Your task to perform on an android device: Show the shopping cart on ebay. Image 0: 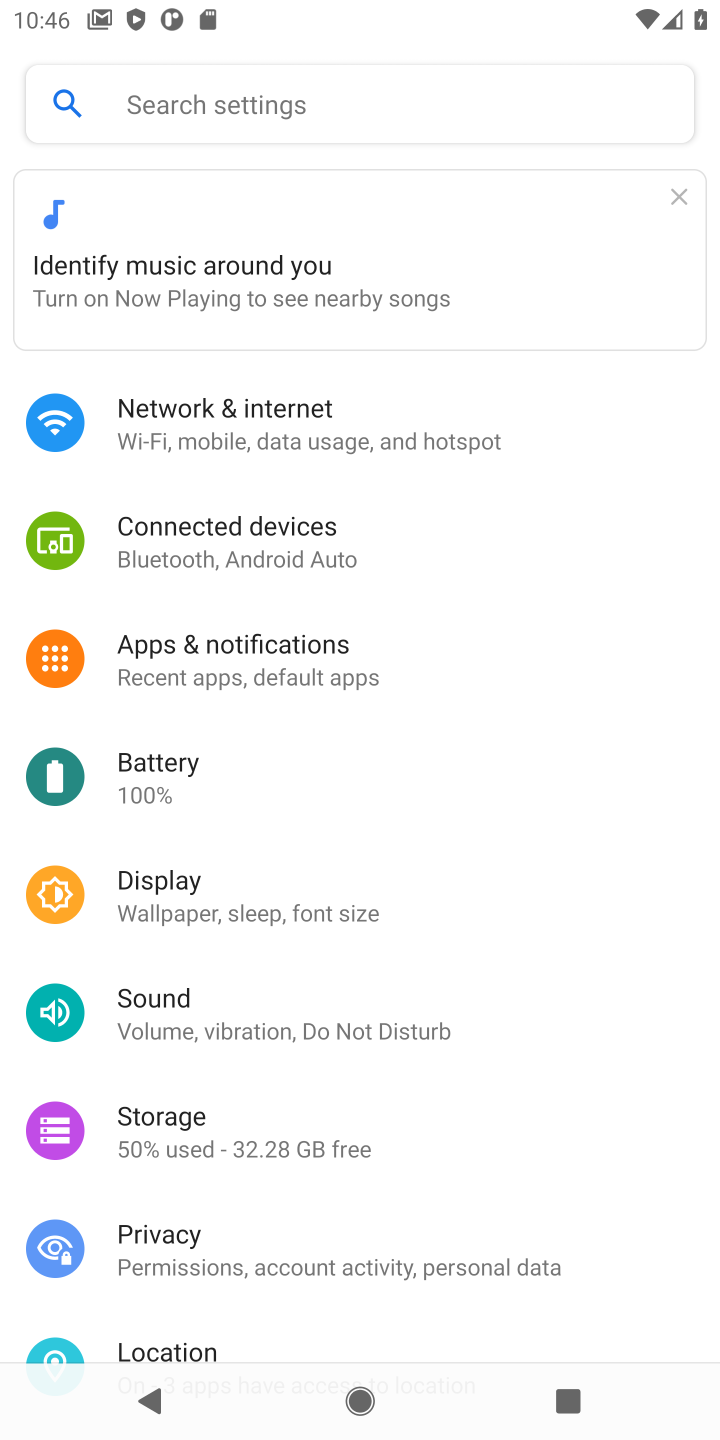
Step 0: press home button
Your task to perform on an android device: Show the shopping cart on ebay. Image 1: 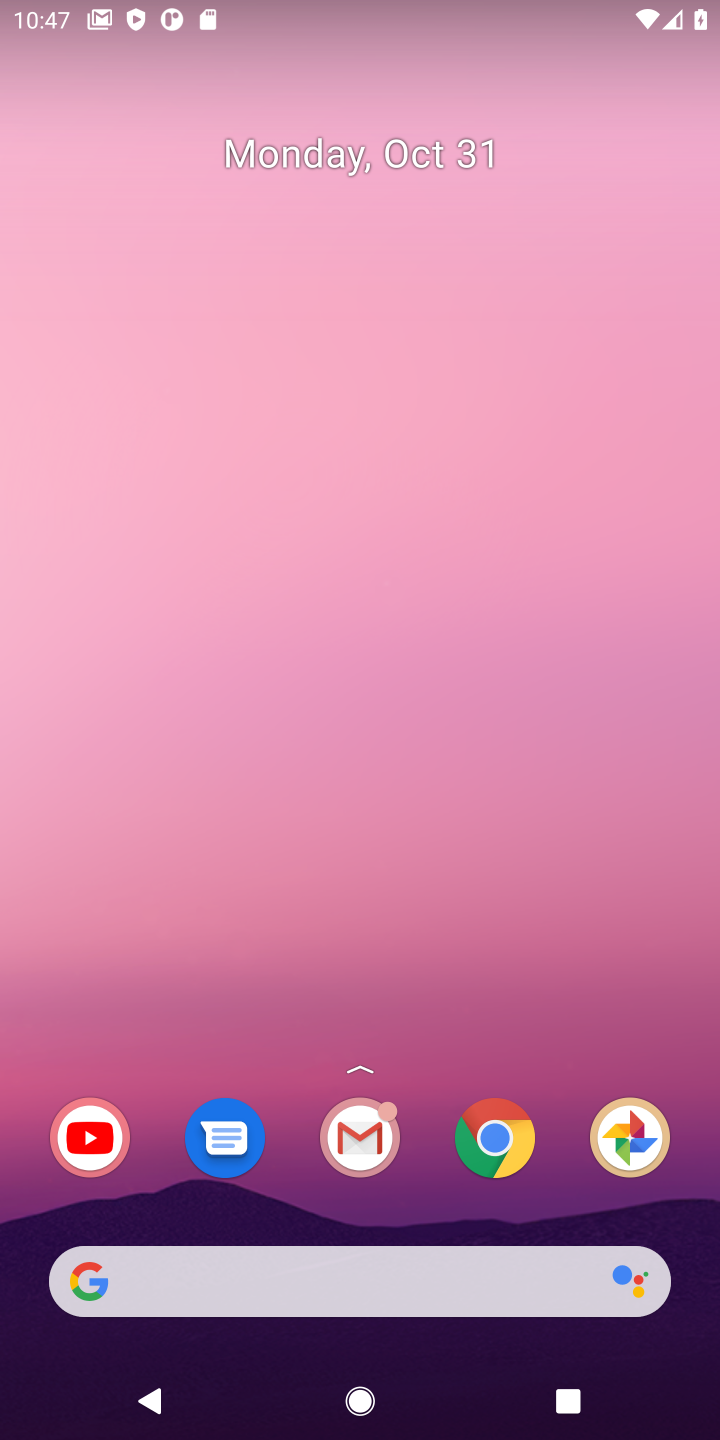
Step 1: click (497, 1128)
Your task to perform on an android device: Show the shopping cart on ebay. Image 2: 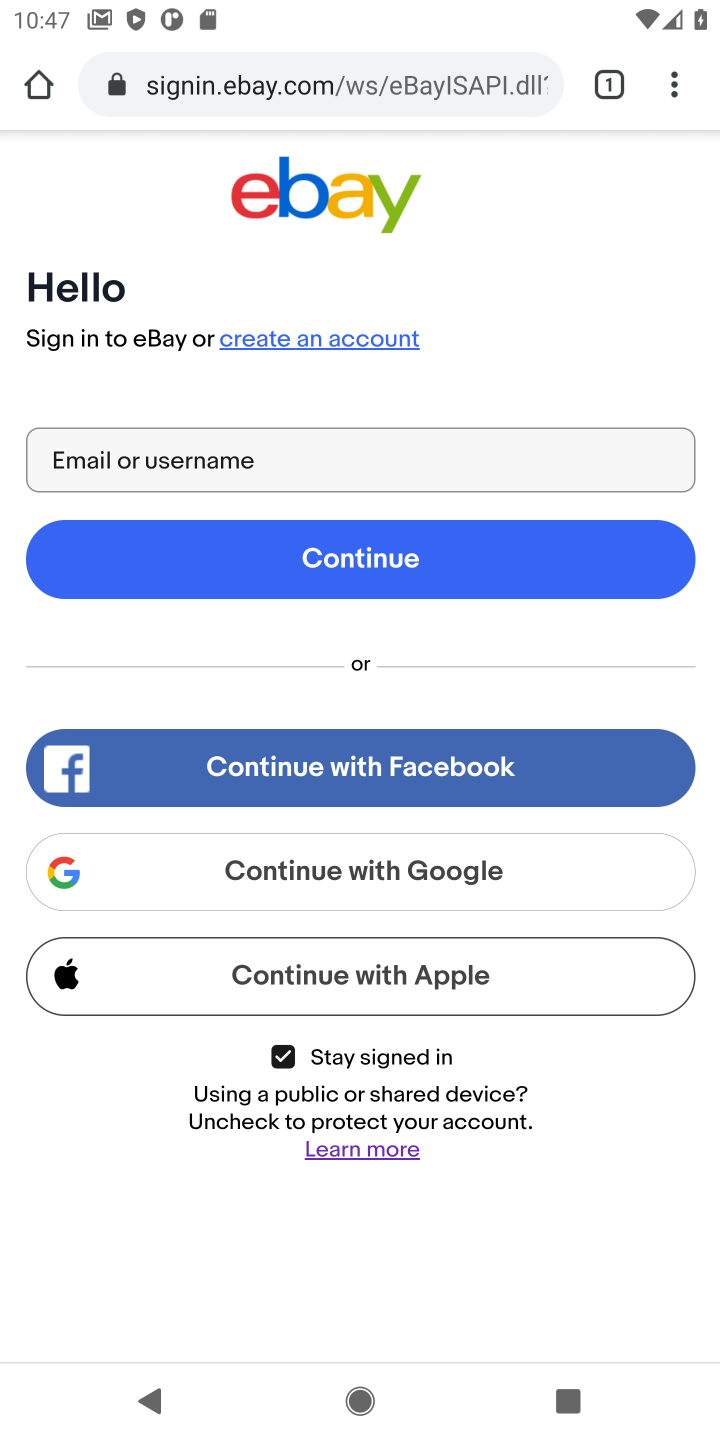
Step 2: click (469, 94)
Your task to perform on an android device: Show the shopping cart on ebay. Image 3: 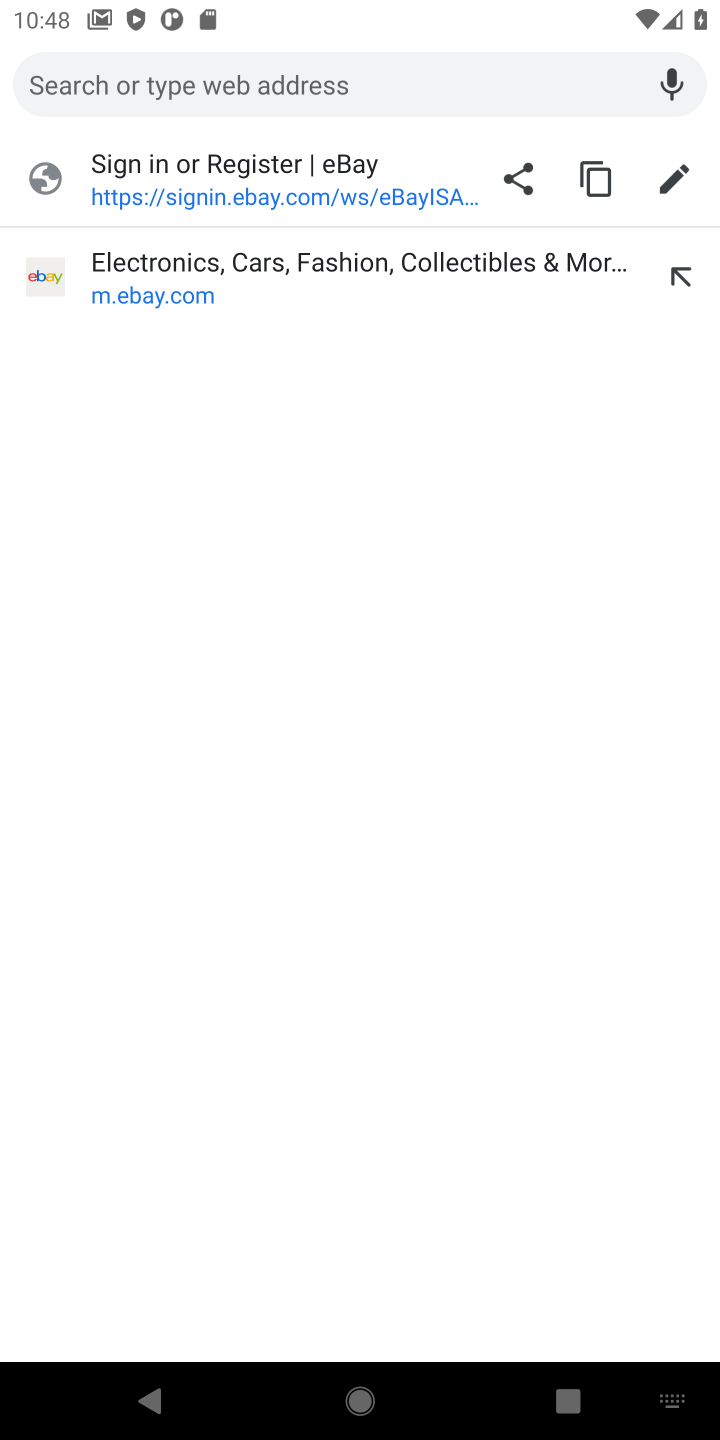
Step 3: click (177, 298)
Your task to perform on an android device: Show the shopping cart on ebay. Image 4: 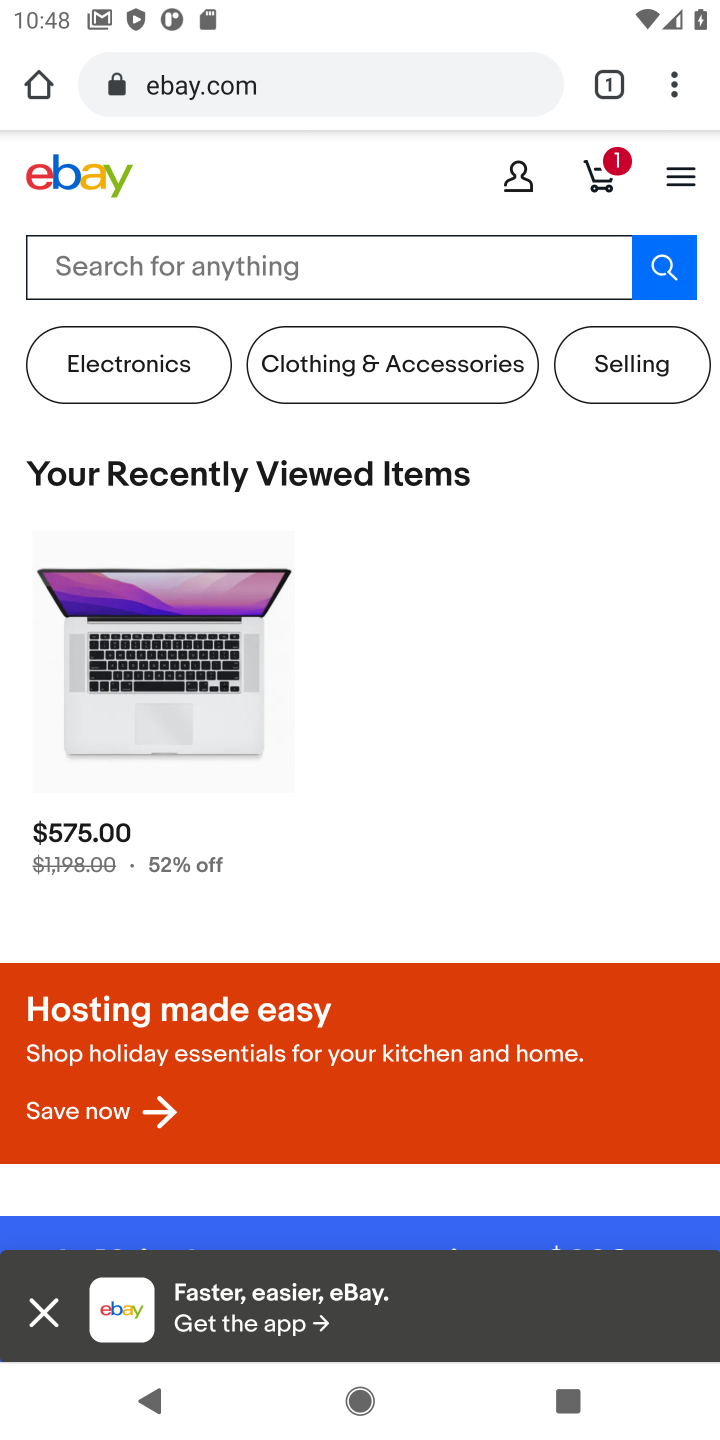
Step 4: click (610, 192)
Your task to perform on an android device: Show the shopping cart on ebay. Image 5: 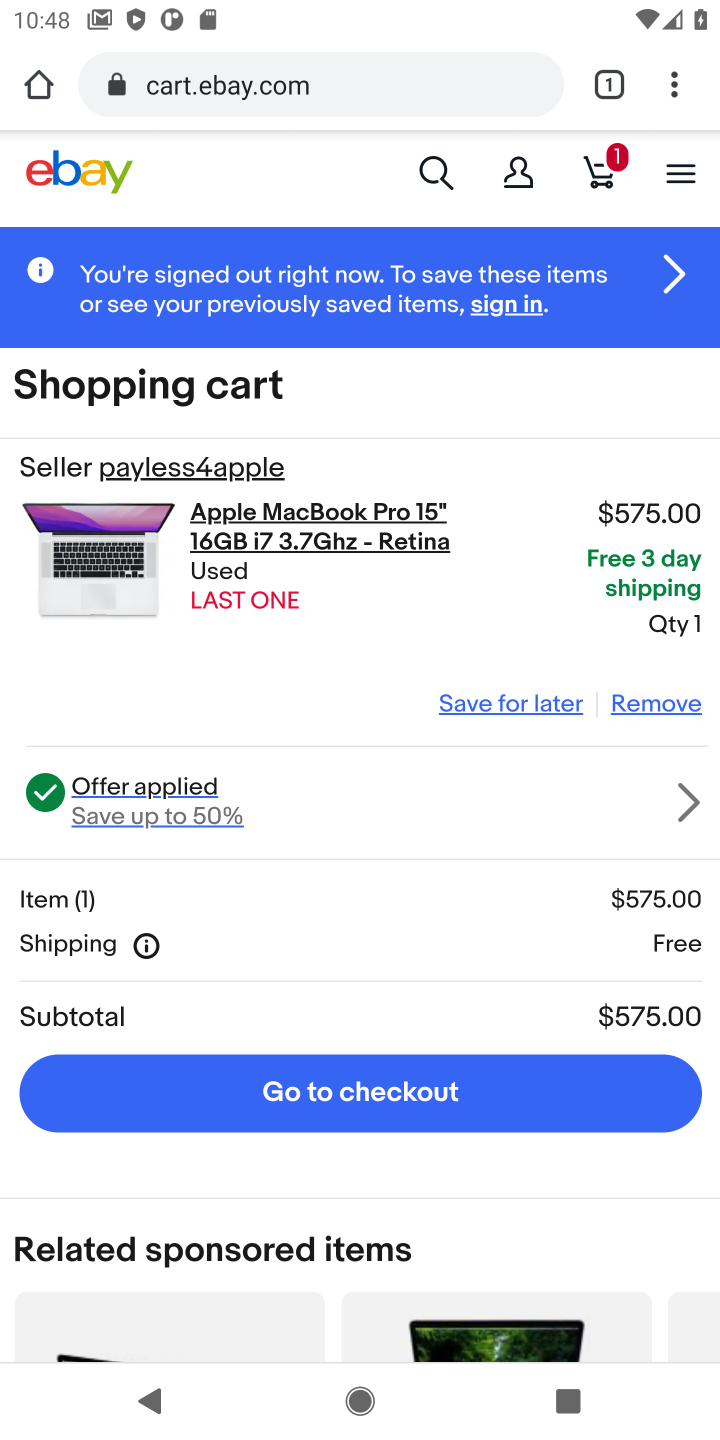
Step 5: task complete